Your task to perform on an android device: Go to Android settings Image 0: 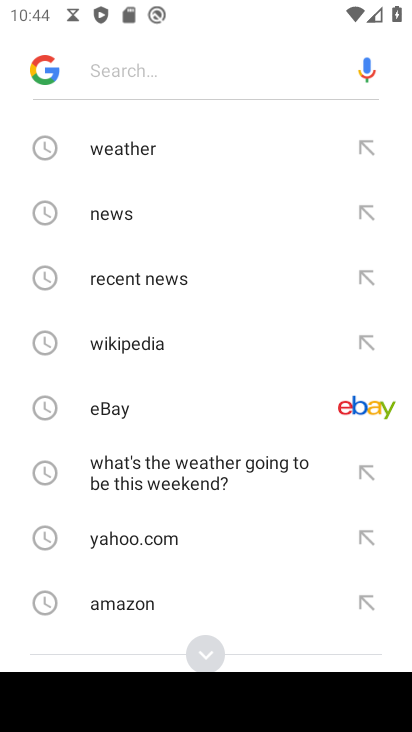
Step 0: press back button
Your task to perform on an android device: Go to Android settings Image 1: 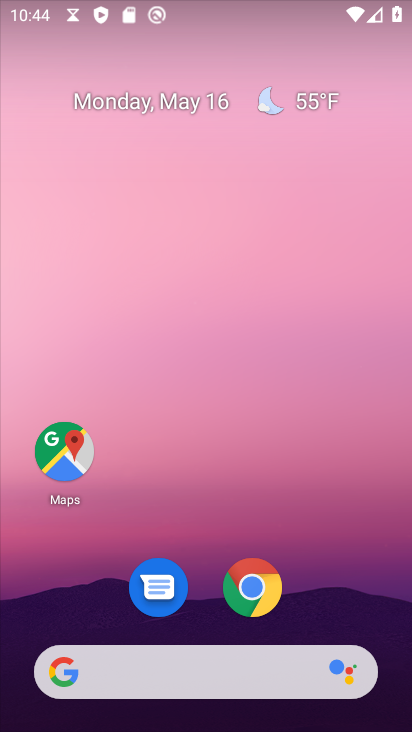
Step 1: drag from (322, 583) to (242, 1)
Your task to perform on an android device: Go to Android settings Image 2: 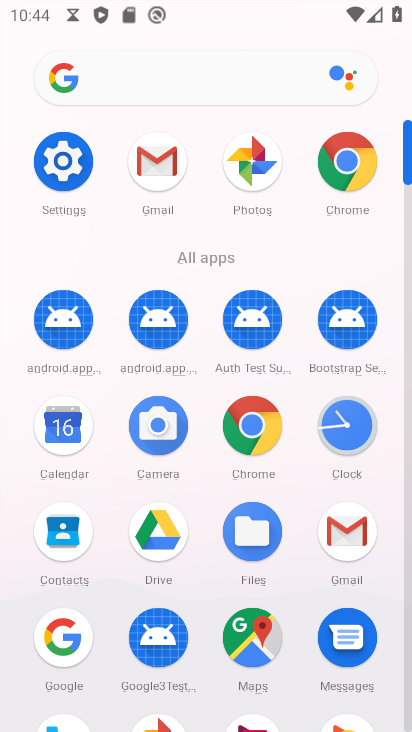
Step 2: drag from (16, 538) to (25, 254)
Your task to perform on an android device: Go to Android settings Image 3: 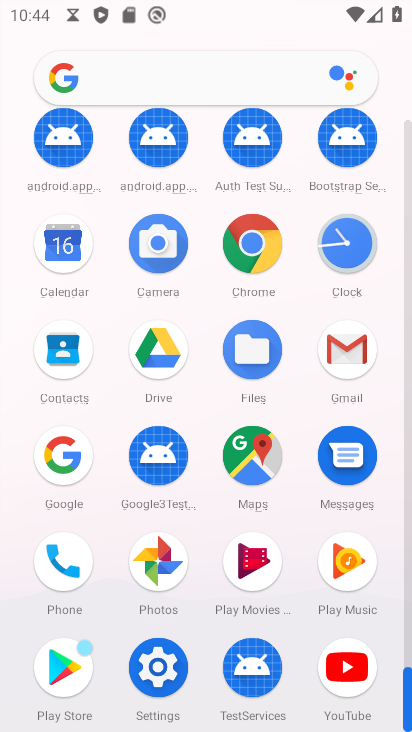
Step 3: drag from (8, 153) to (11, 460)
Your task to perform on an android device: Go to Android settings Image 4: 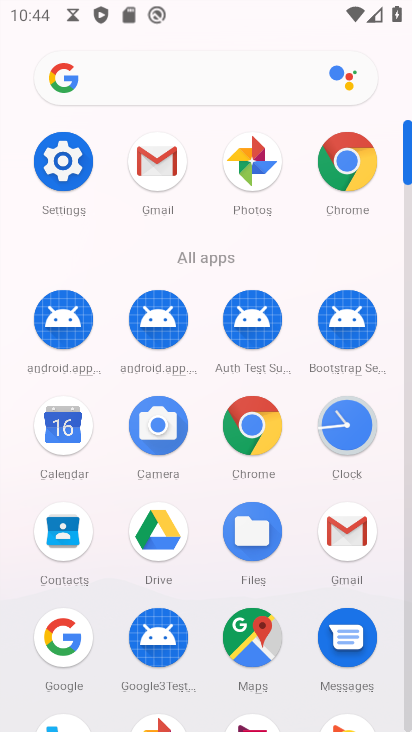
Step 4: click (63, 156)
Your task to perform on an android device: Go to Android settings Image 5: 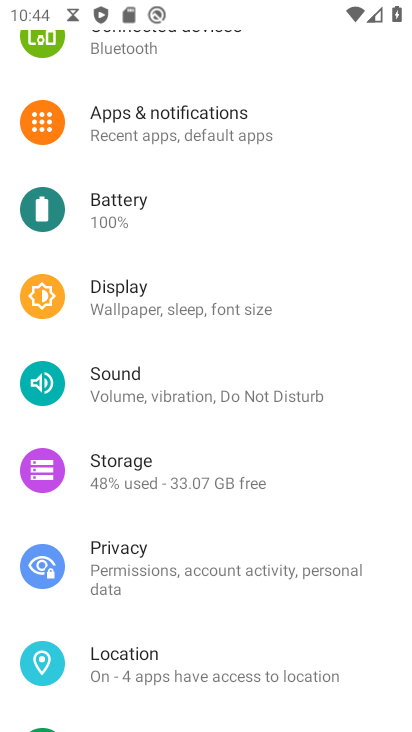
Step 5: task complete